Your task to perform on an android device: Go to privacy settings Image 0: 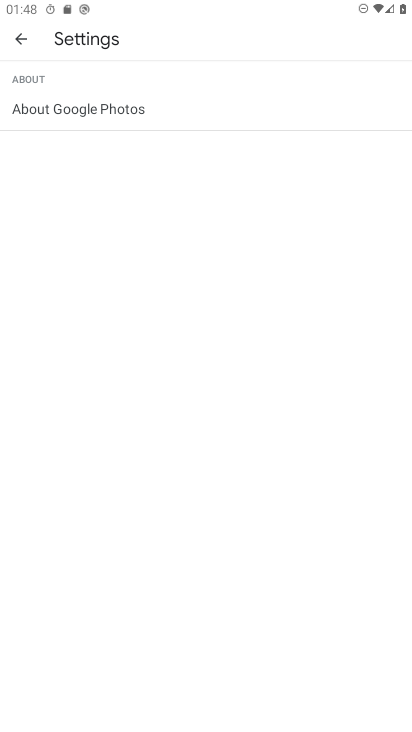
Step 0: press home button
Your task to perform on an android device: Go to privacy settings Image 1: 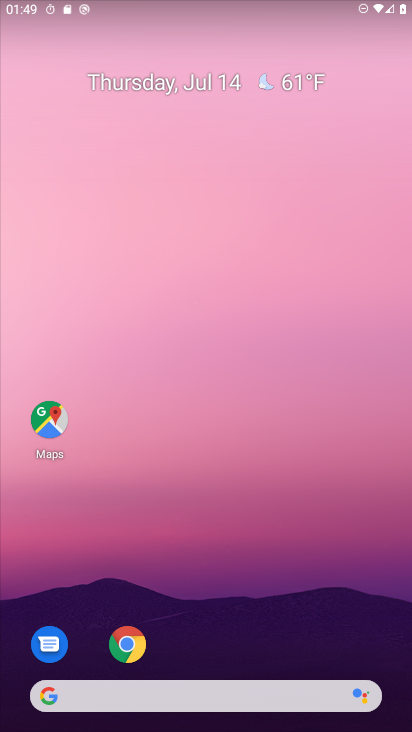
Step 1: drag from (253, 468) to (206, 151)
Your task to perform on an android device: Go to privacy settings Image 2: 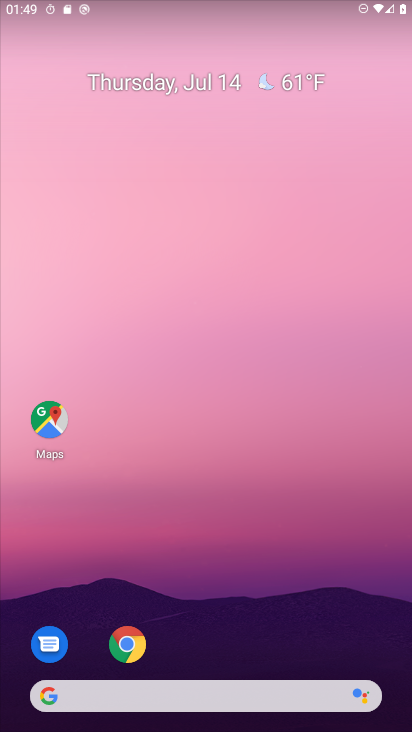
Step 2: drag from (297, 593) to (219, 127)
Your task to perform on an android device: Go to privacy settings Image 3: 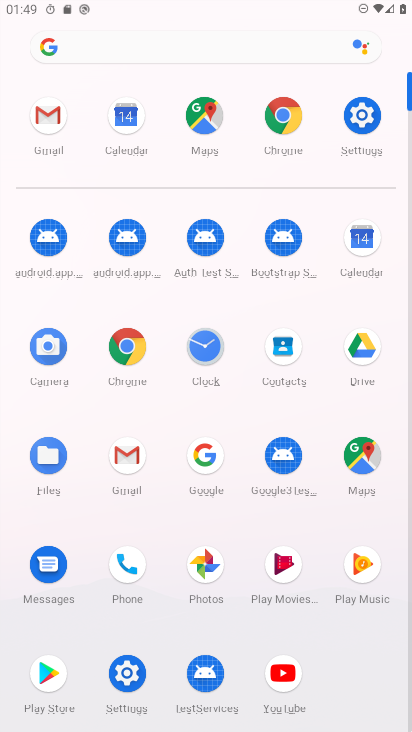
Step 3: click (366, 110)
Your task to perform on an android device: Go to privacy settings Image 4: 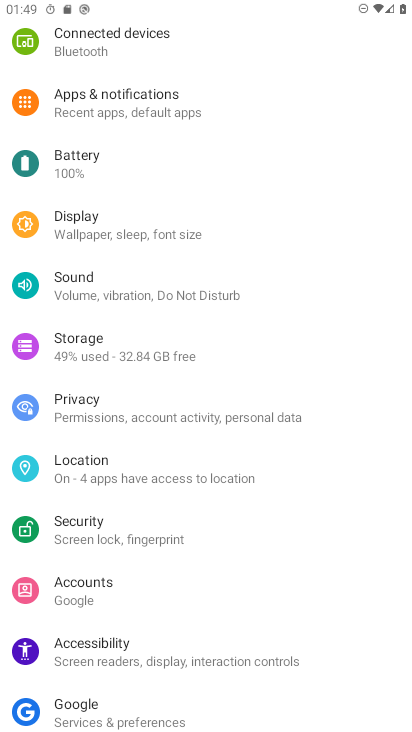
Step 4: click (115, 410)
Your task to perform on an android device: Go to privacy settings Image 5: 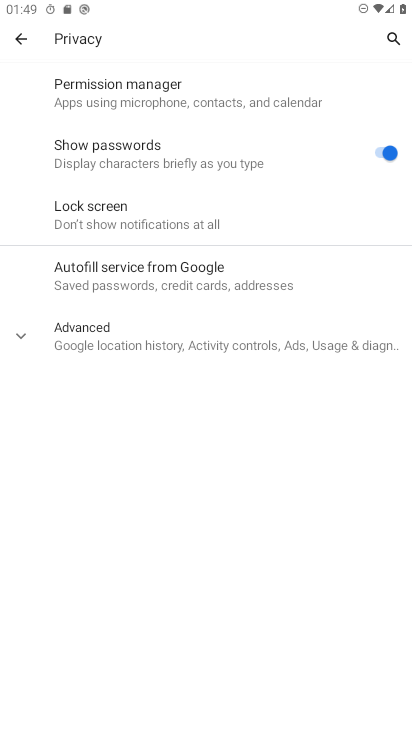
Step 5: task complete